Your task to perform on an android device: turn on translation in the chrome app Image 0: 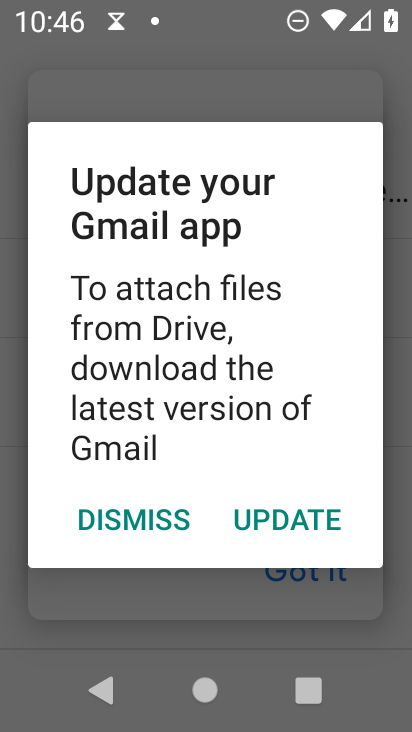
Step 0: press home button
Your task to perform on an android device: turn on translation in the chrome app Image 1: 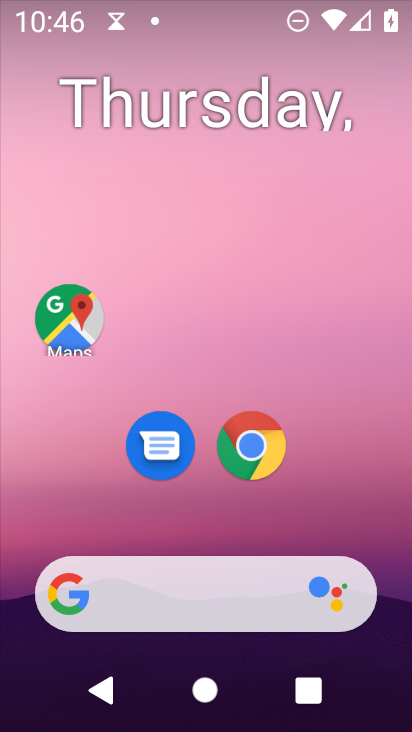
Step 1: click (258, 446)
Your task to perform on an android device: turn on translation in the chrome app Image 2: 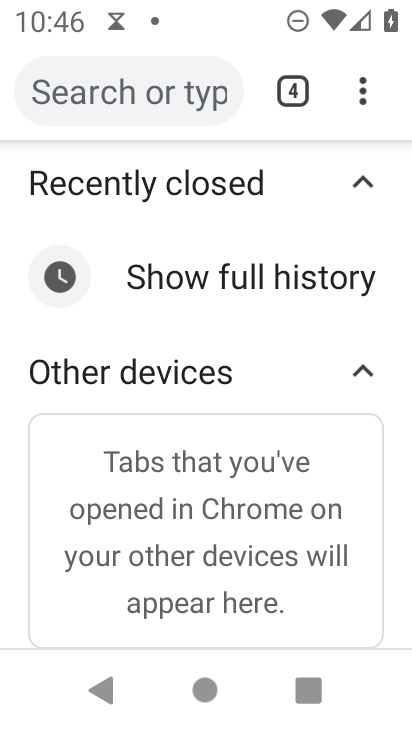
Step 2: click (363, 102)
Your task to perform on an android device: turn on translation in the chrome app Image 3: 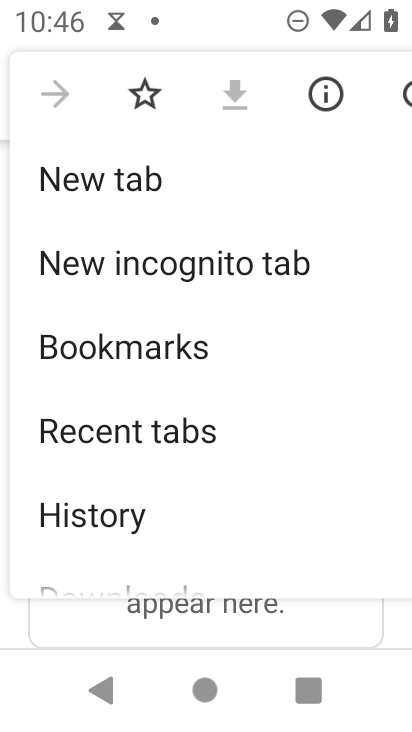
Step 3: drag from (228, 562) to (229, 54)
Your task to perform on an android device: turn on translation in the chrome app Image 4: 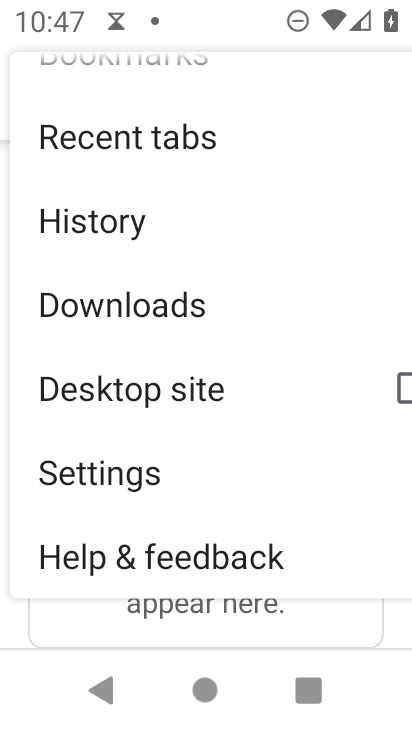
Step 4: click (115, 474)
Your task to perform on an android device: turn on translation in the chrome app Image 5: 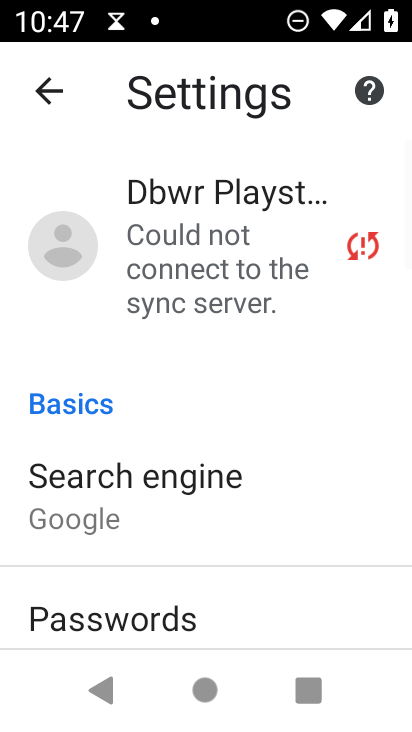
Step 5: drag from (299, 632) to (277, 134)
Your task to perform on an android device: turn on translation in the chrome app Image 6: 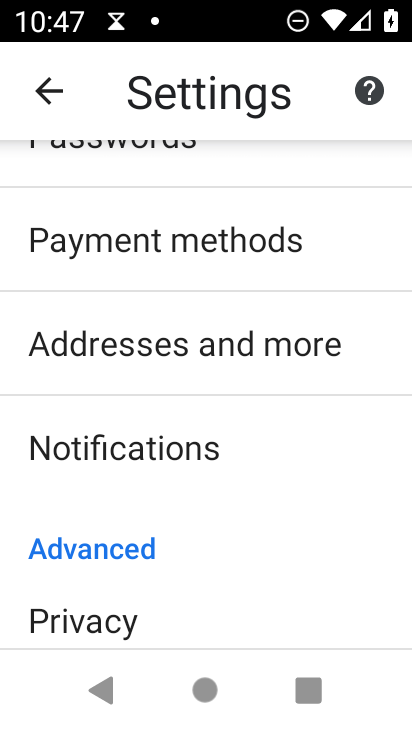
Step 6: drag from (255, 610) to (255, 207)
Your task to perform on an android device: turn on translation in the chrome app Image 7: 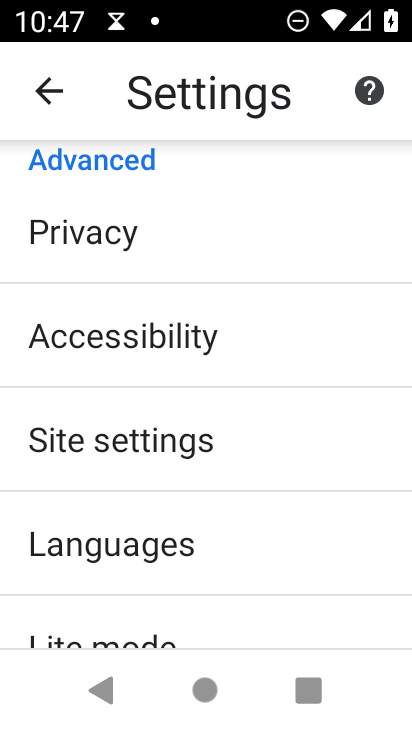
Step 7: click (130, 551)
Your task to perform on an android device: turn on translation in the chrome app Image 8: 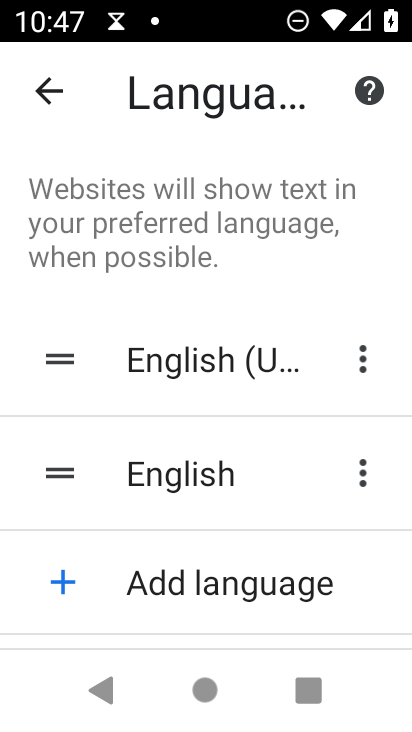
Step 8: task complete